Your task to perform on an android device: move a message to another label in the gmail app Image 0: 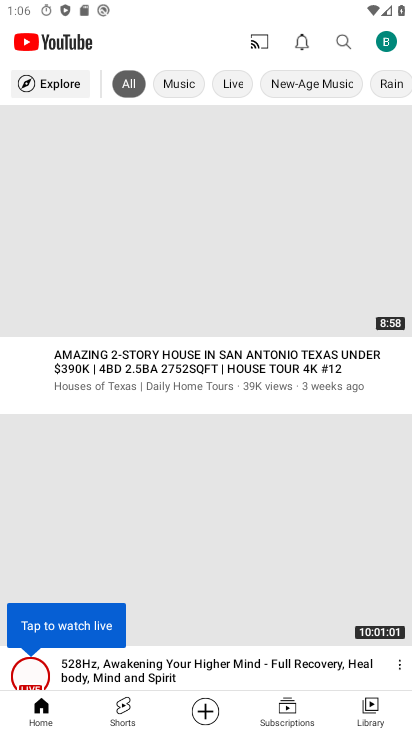
Step 0: press home button
Your task to perform on an android device: move a message to another label in the gmail app Image 1: 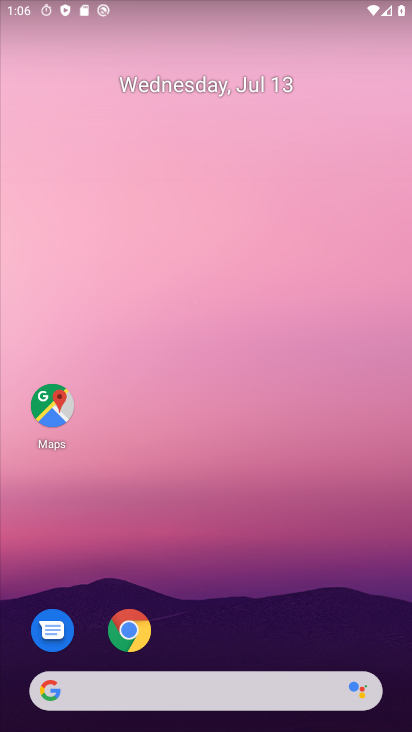
Step 1: drag from (311, 606) to (345, 158)
Your task to perform on an android device: move a message to another label in the gmail app Image 2: 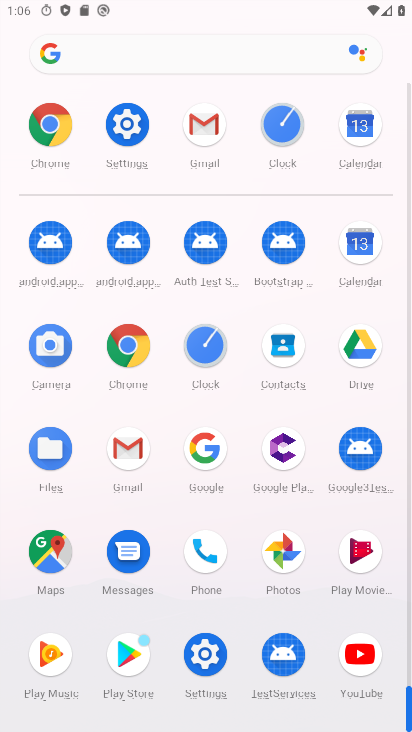
Step 2: click (205, 132)
Your task to perform on an android device: move a message to another label in the gmail app Image 3: 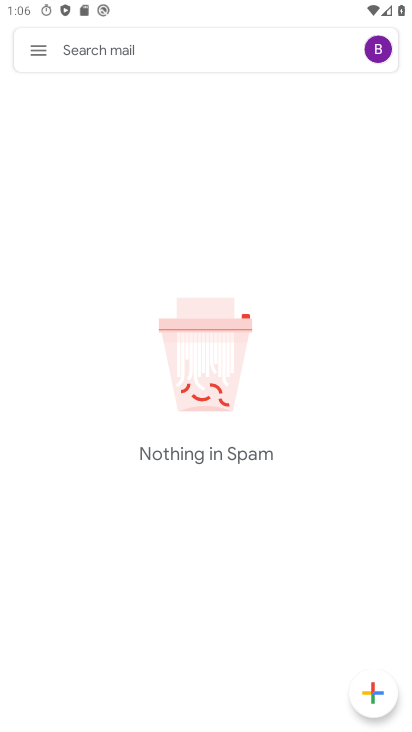
Step 3: click (43, 44)
Your task to perform on an android device: move a message to another label in the gmail app Image 4: 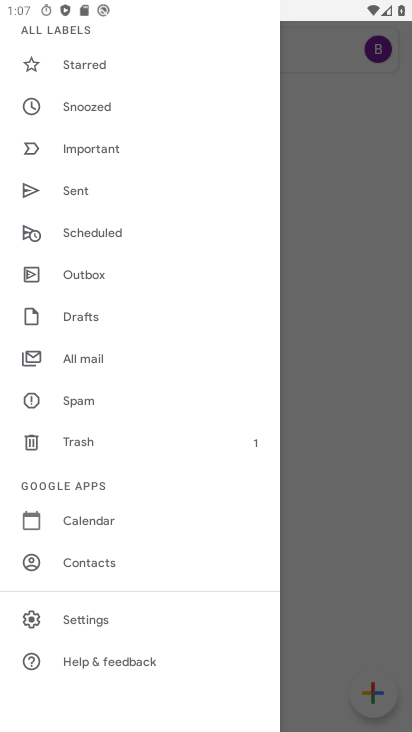
Step 4: drag from (84, 112) to (174, 515)
Your task to perform on an android device: move a message to another label in the gmail app Image 5: 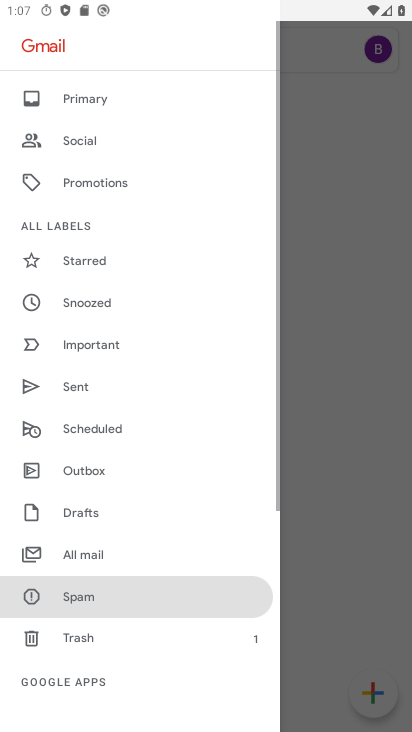
Step 5: drag from (99, 127) to (182, 458)
Your task to perform on an android device: move a message to another label in the gmail app Image 6: 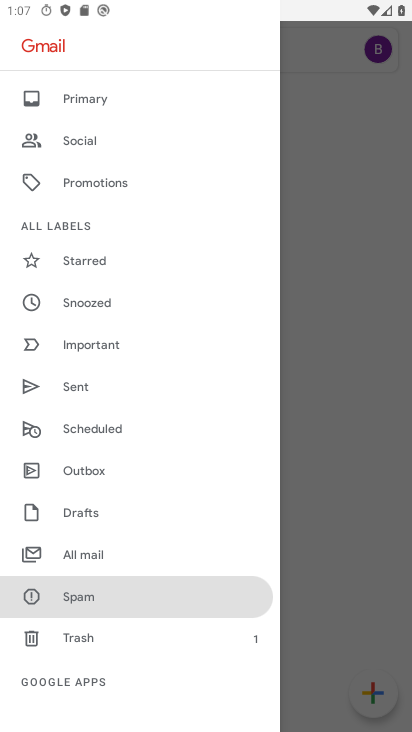
Step 6: click (125, 548)
Your task to perform on an android device: move a message to another label in the gmail app Image 7: 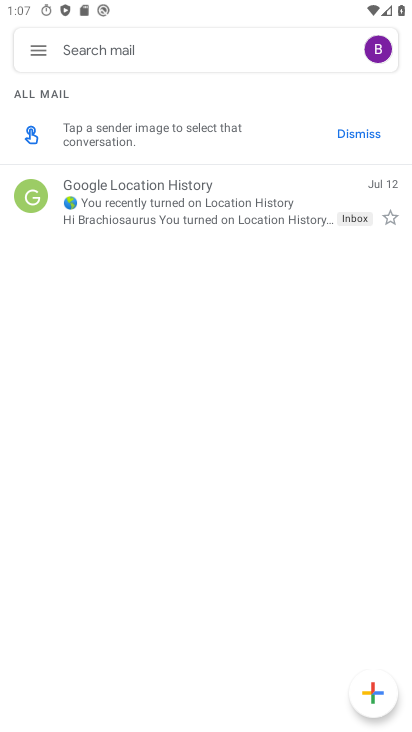
Step 7: click (152, 210)
Your task to perform on an android device: move a message to another label in the gmail app Image 8: 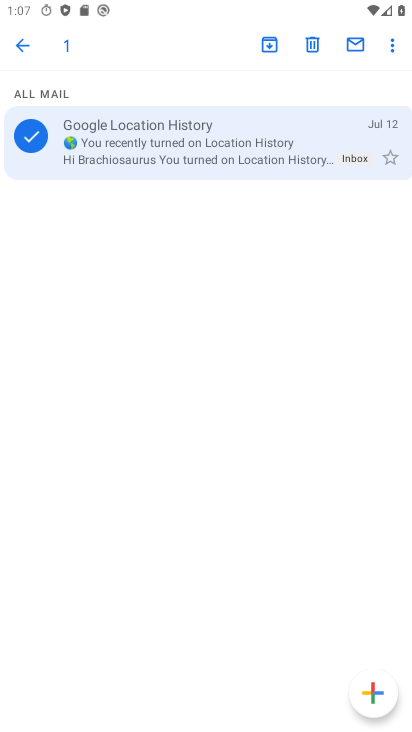
Step 8: click (395, 55)
Your task to perform on an android device: move a message to another label in the gmail app Image 9: 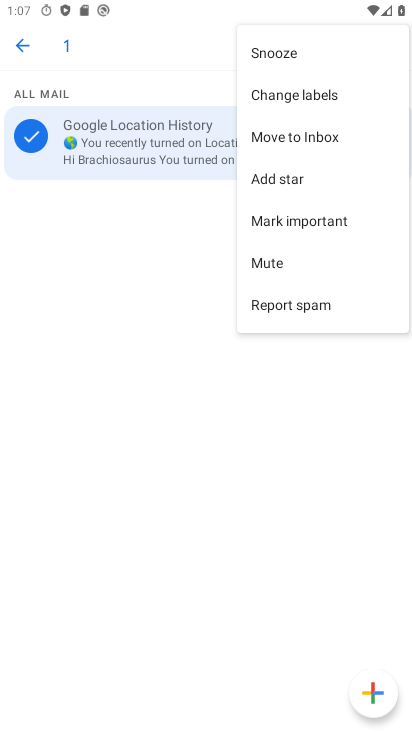
Step 9: click (341, 88)
Your task to perform on an android device: move a message to another label in the gmail app Image 10: 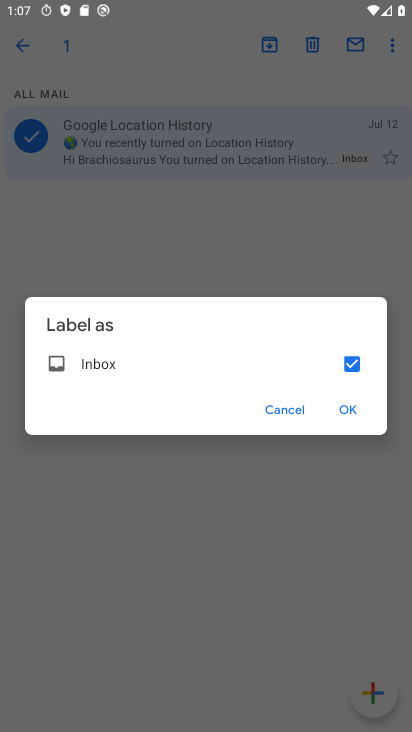
Step 10: click (351, 366)
Your task to perform on an android device: move a message to another label in the gmail app Image 11: 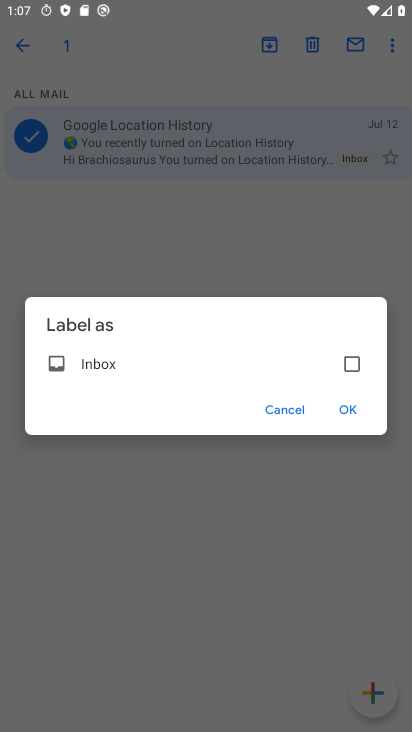
Step 11: click (368, 405)
Your task to perform on an android device: move a message to another label in the gmail app Image 12: 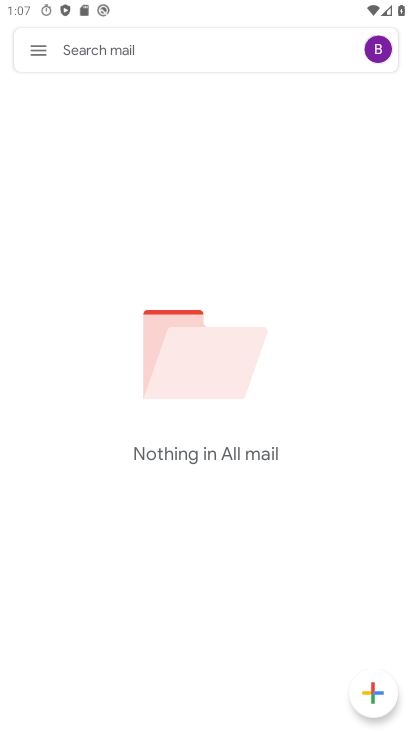
Step 12: task complete